Your task to perform on an android device: all mails in gmail Image 0: 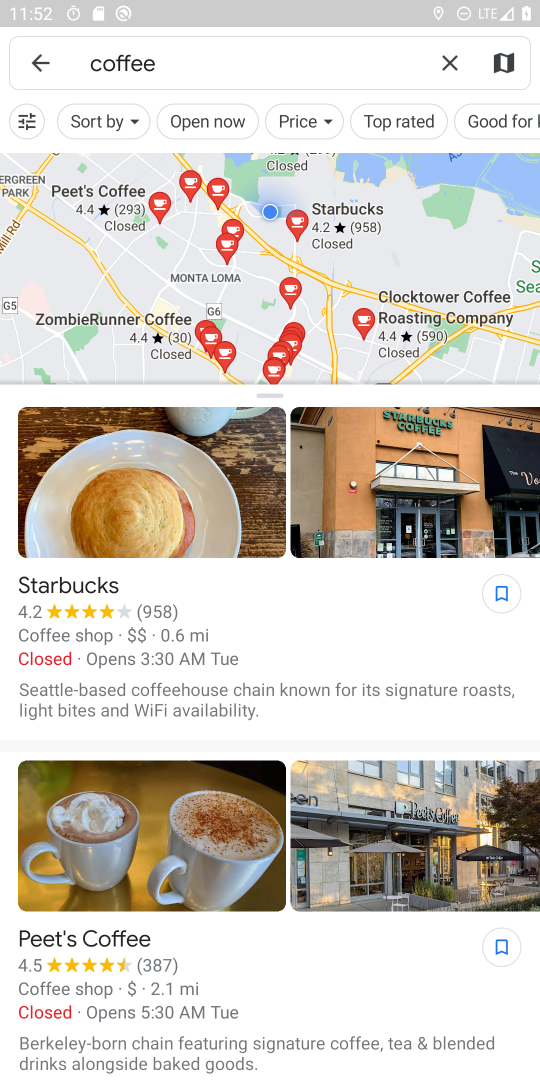
Step 0: press home button
Your task to perform on an android device: all mails in gmail Image 1: 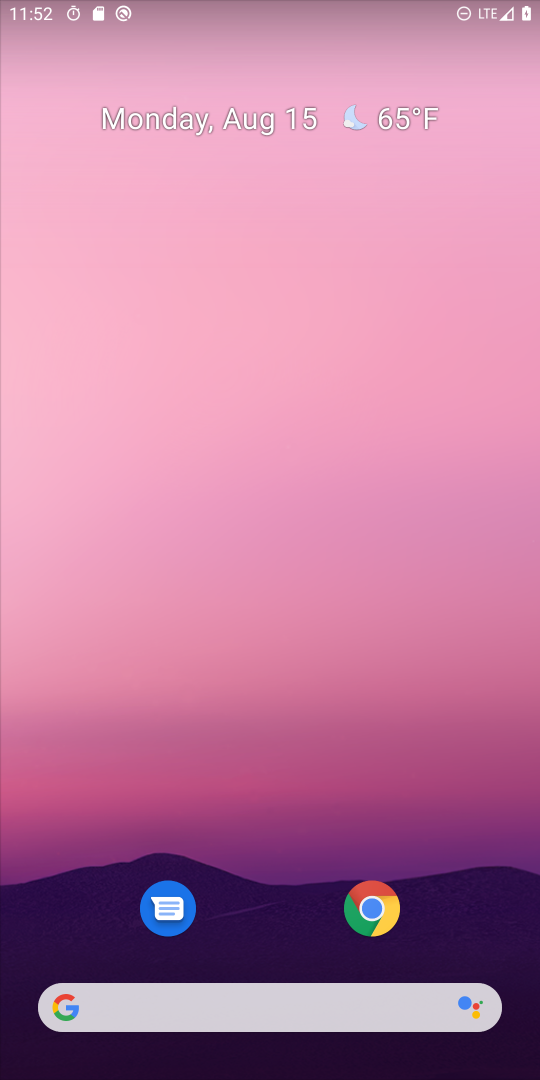
Step 1: drag from (285, 911) to (340, 304)
Your task to perform on an android device: all mails in gmail Image 2: 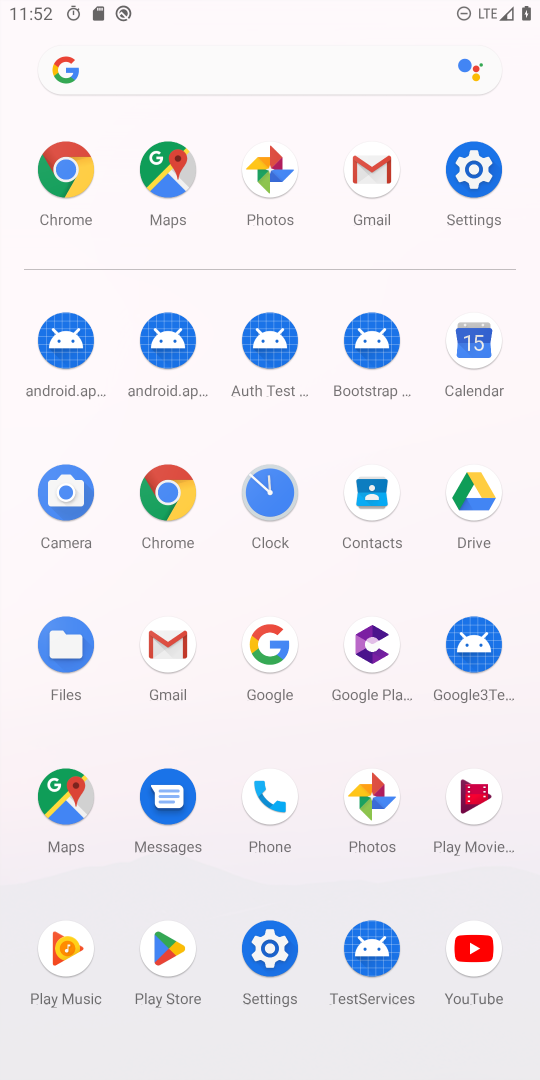
Step 2: click (385, 157)
Your task to perform on an android device: all mails in gmail Image 3: 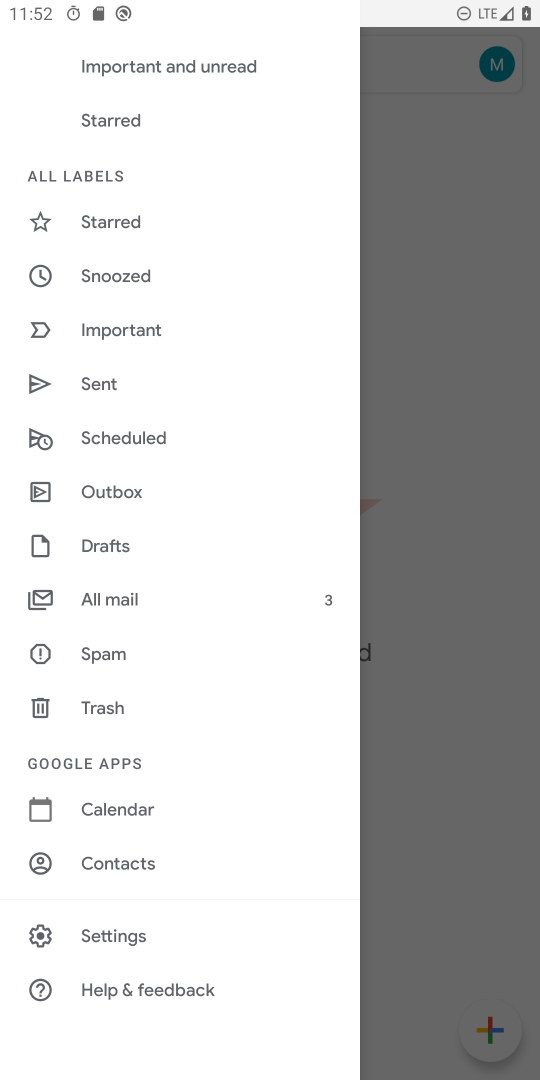
Step 3: click (117, 596)
Your task to perform on an android device: all mails in gmail Image 4: 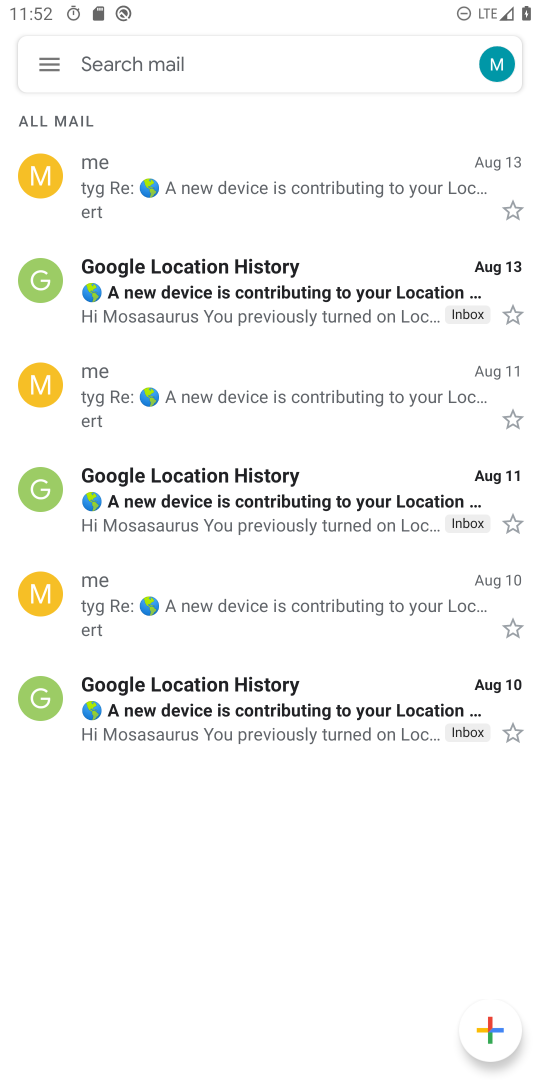
Step 4: task complete